Your task to perform on an android device: Go to eBay Image 0: 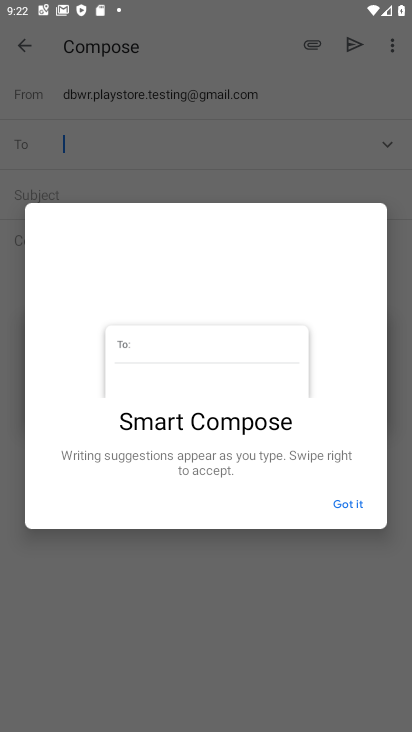
Step 0: press home button
Your task to perform on an android device: Go to eBay Image 1: 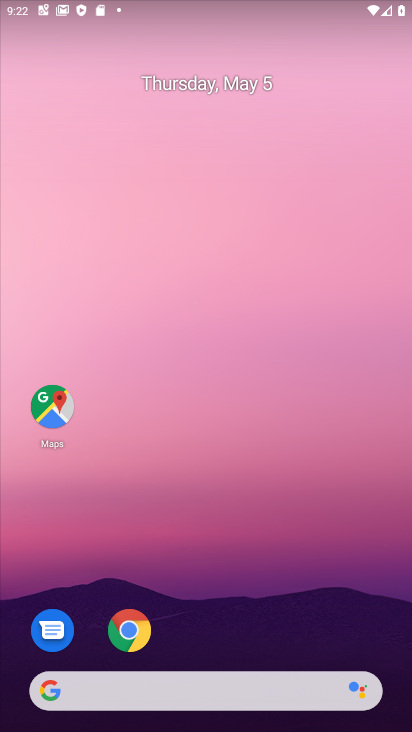
Step 1: click (142, 623)
Your task to perform on an android device: Go to eBay Image 2: 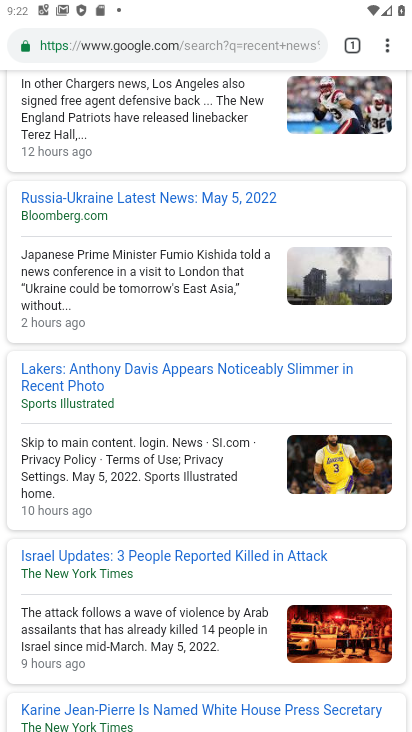
Step 2: click (351, 46)
Your task to perform on an android device: Go to eBay Image 3: 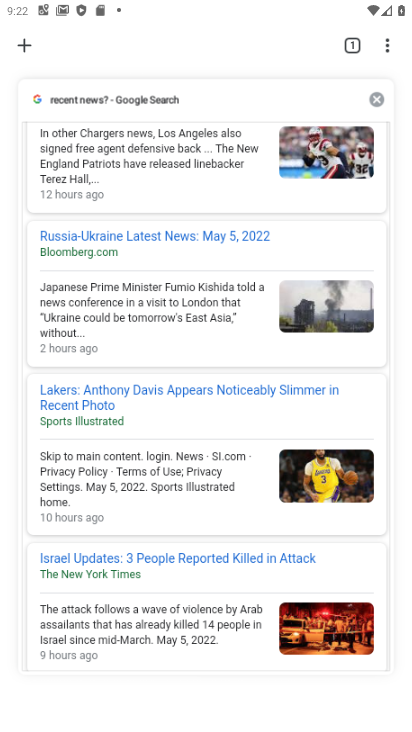
Step 3: click (20, 46)
Your task to perform on an android device: Go to eBay Image 4: 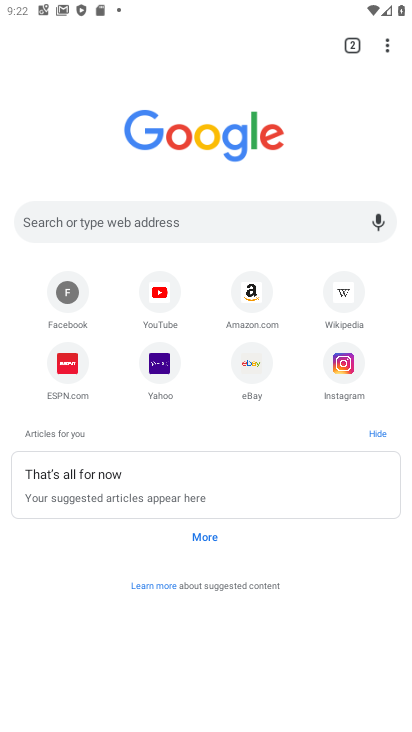
Step 4: click (252, 367)
Your task to perform on an android device: Go to eBay Image 5: 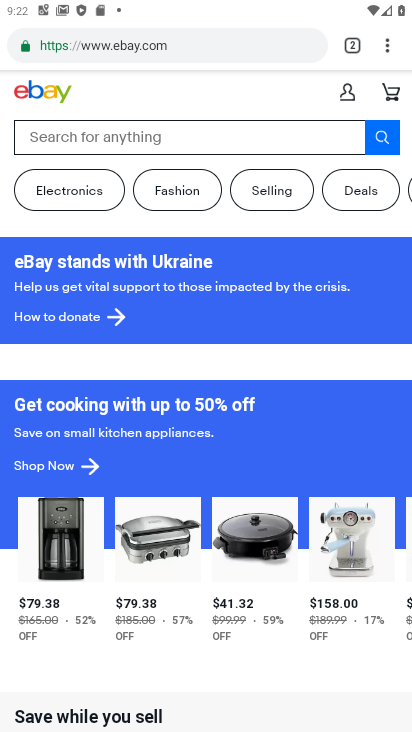
Step 5: task complete